Your task to perform on an android device: Clear the shopping cart on newegg.com. Image 0: 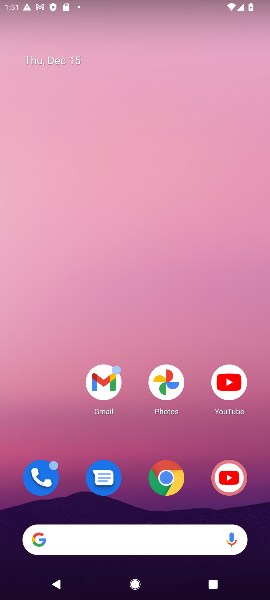
Step 0: click (163, 480)
Your task to perform on an android device: Clear the shopping cart on newegg.com. Image 1: 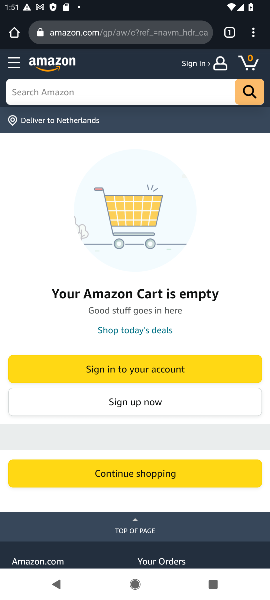
Step 1: click (96, 36)
Your task to perform on an android device: Clear the shopping cart on newegg.com. Image 2: 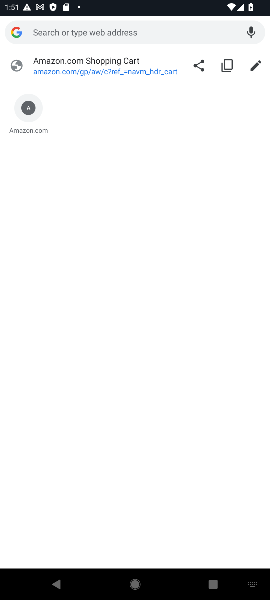
Step 2: type "newegg.com"
Your task to perform on an android device: Clear the shopping cart on newegg.com. Image 3: 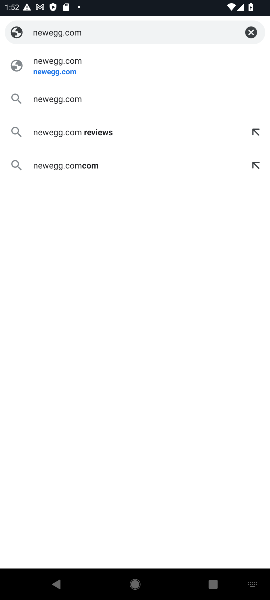
Step 3: click (48, 66)
Your task to perform on an android device: Clear the shopping cart on newegg.com. Image 4: 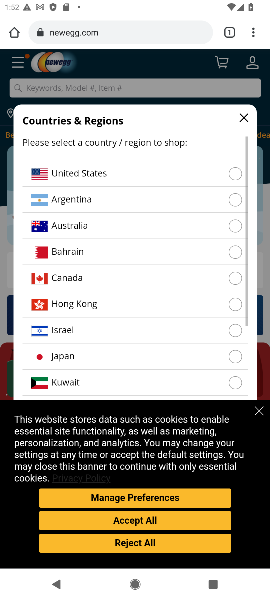
Step 4: click (263, 410)
Your task to perform on an android device: Clear the shopping cart on newegg.com. Image 5: 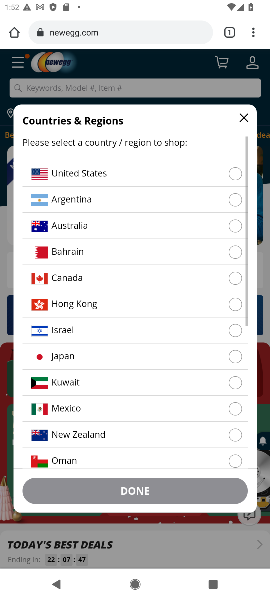
Step 5: click (70, 176)
Your task to perform on an android device: Clear the shopping cart on newegg.com. Image 6: 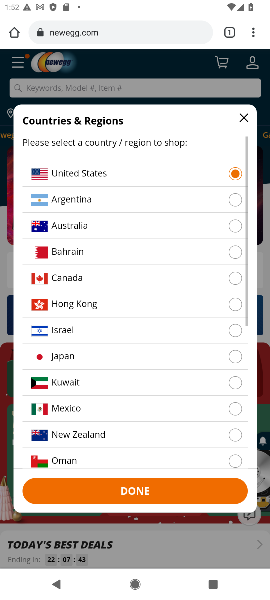
Step 6: click (124, 489)
Your task to perform on an android device: Clear the shopping cart on newegg.com. Image 7: 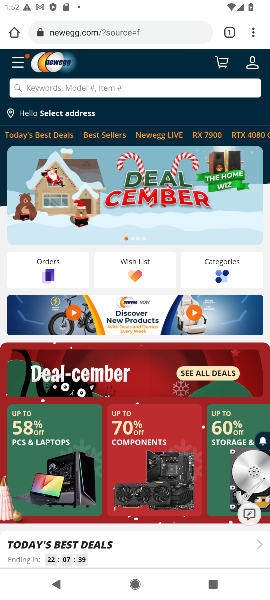
Step 7: click (223, 67)
Your task to perform on an android device: Clear the shopping cart on newegg.com. Image 8: 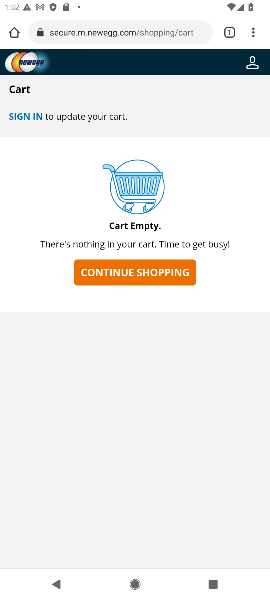
Step 8: task complete